Your task to perform on an android device: Go to network settings Image 0: 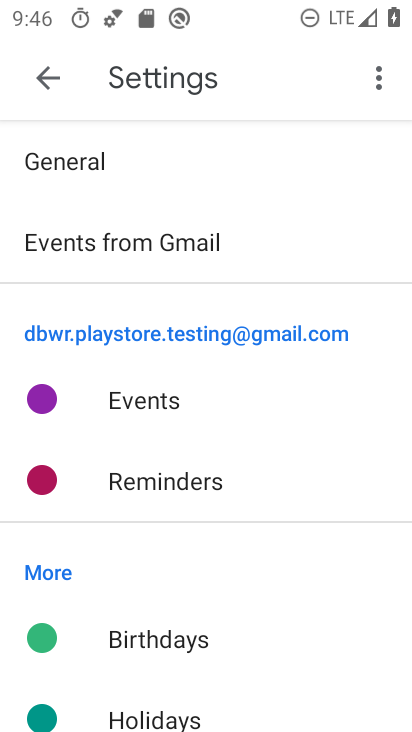
Step 0: press home button
Your task to perform on an android device: Go to network settings Image 1: 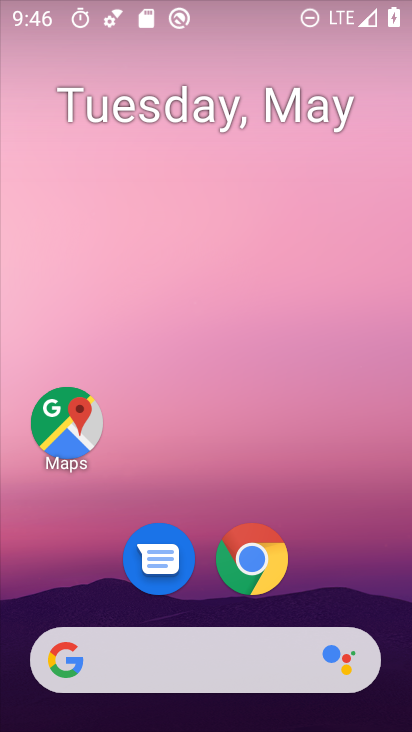
Step 1: drag from (397, 454) to (298, 65)
Your task to perform on an android device: Go to network settings Image 2: 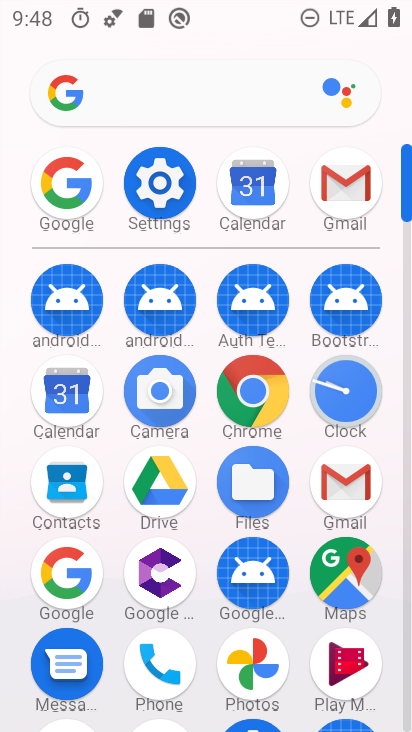
Step 2: click (157, 187)
Your task to perform on an android device: Go to network settings Image 3: 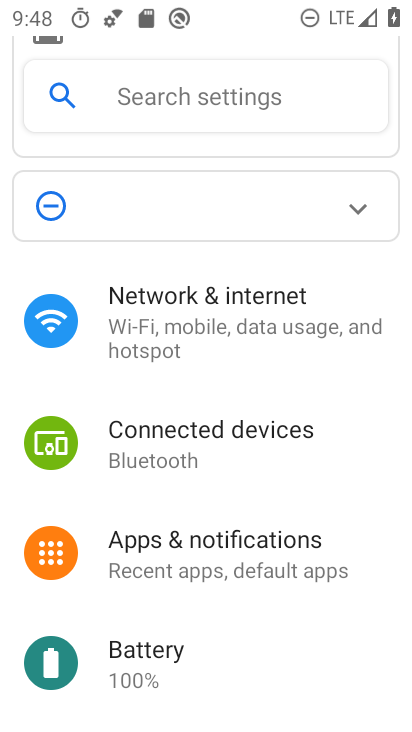
Step 3: click (253, 328)
Your task to perform on an android device: Go to network settings Image 4: 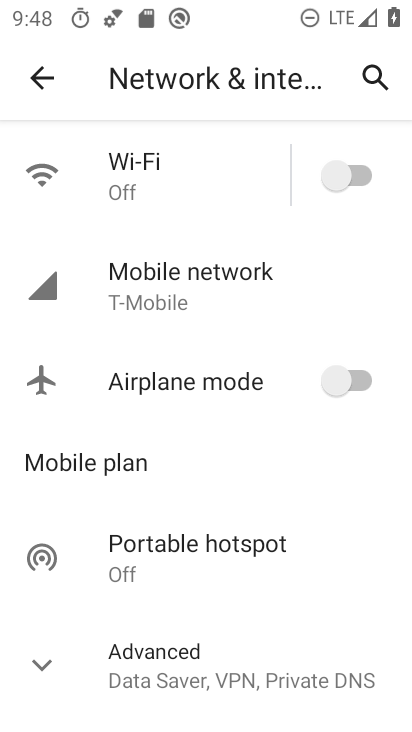
Step 4: task complete